Your task to perform on an android device: manage bookmarks in the chrome app Image 0: 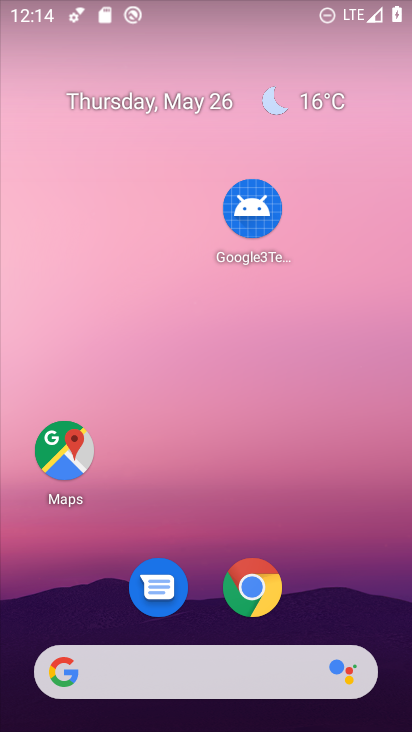
Step 0: click (250, 577)
Your task to perform on an android device: manage bookmarks in the chrome app Image 1: 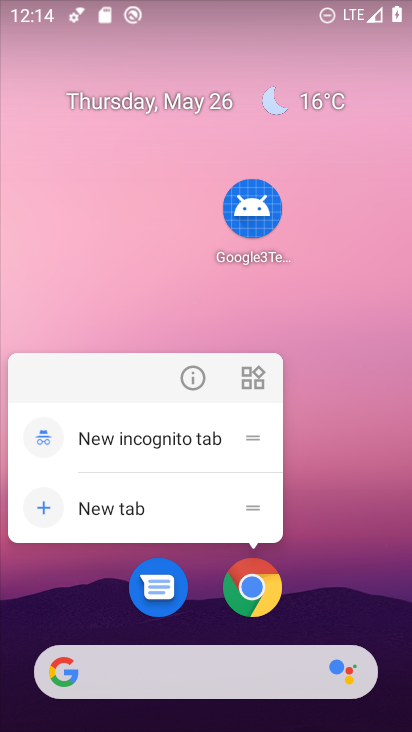
Step 1: click (250, 577)
Your task to perform on an android device: manage bookmarks in the chrome app Image 2: 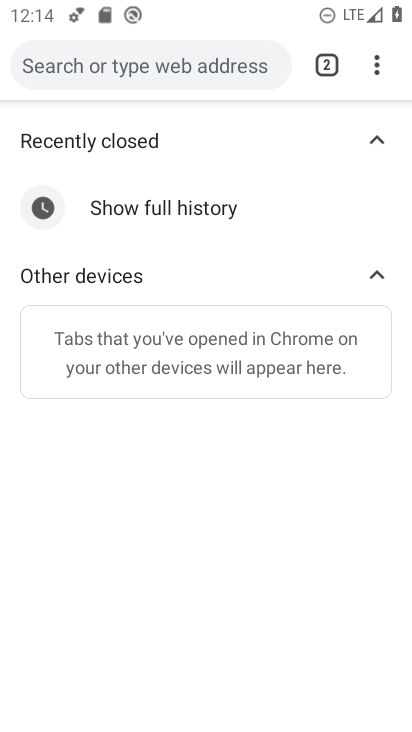
Step 2: task complete